Your task to perform on an android device: toggle data saver in the chrome app Image 0: 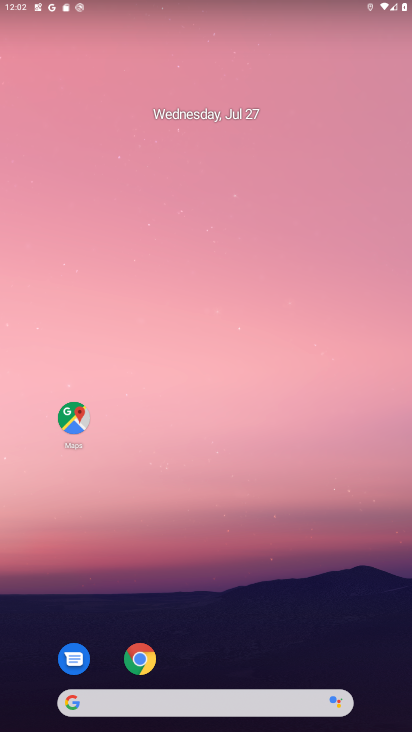
Step 0: drag from (245, 617) to (265, 0)
Your task to perform on an android device: toggle data saver in the chrome app Image 1: 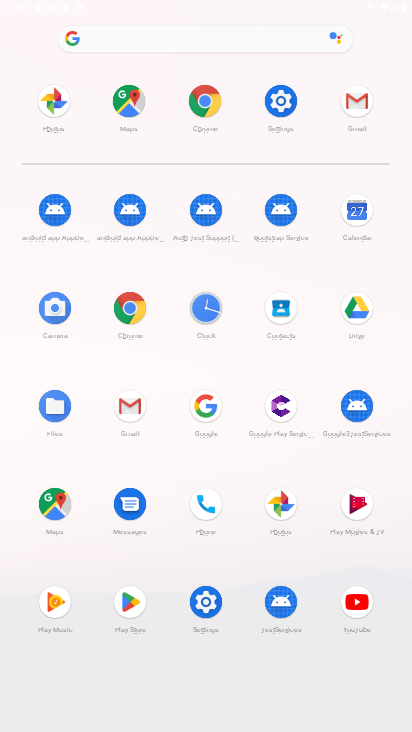
Step 1: click (136, 305)
Your task to perform on an android device: toggle data saver in the chrome app Image 2: 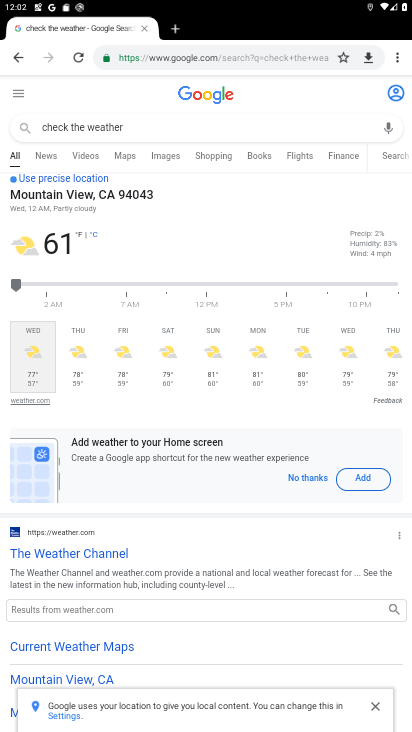
Step 2: click (394, 51)
Your task to perform on an android device: toggle data saver in the chrome app Image 3: 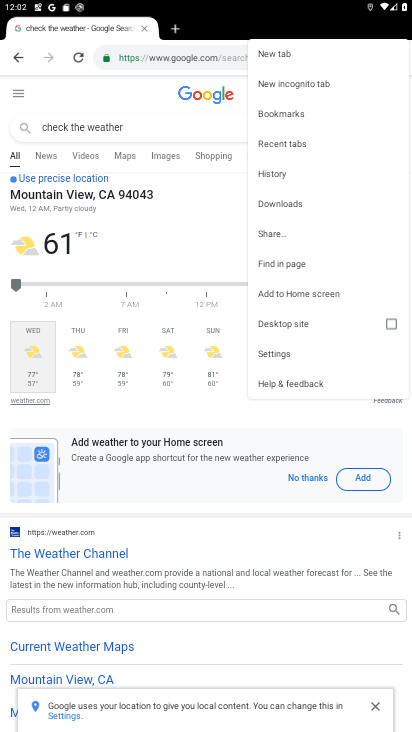
Step 3: click (304, 352)
Your task to perform on an android device: toggle data saver in the chrome app Image 4: 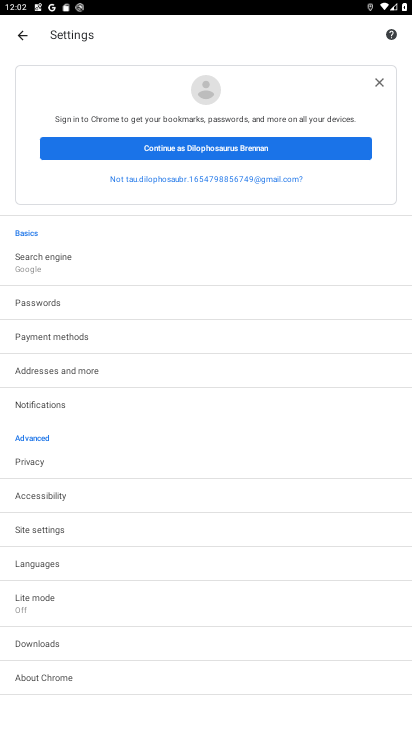
Step 4: click (59, 604)
Your task to perform on an android device: toggle data saver in the chrome app Image 5: 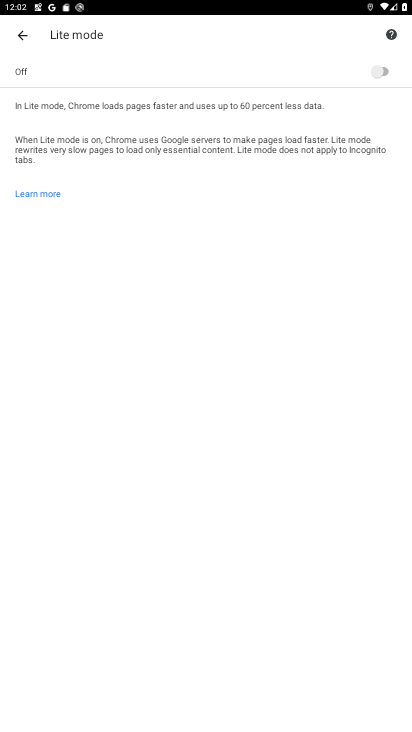
Step 5: click (379, 68)
Your task to perform on an android device: toggle data saver in the chrome app Image 6: 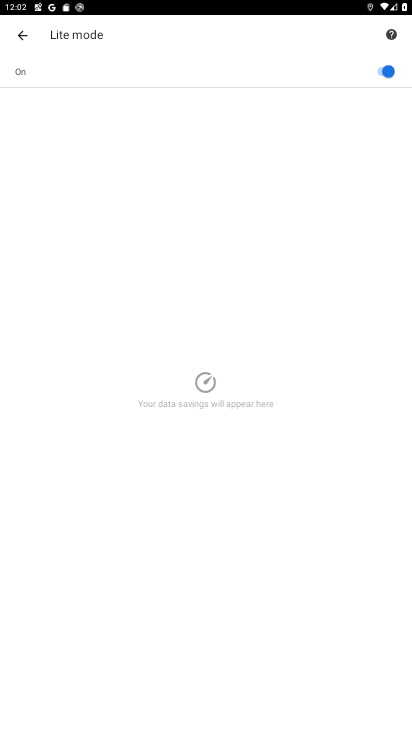
Step 6: task complete